Your task to perform on an android device: move an email to a new category in the gmail app Image 0: 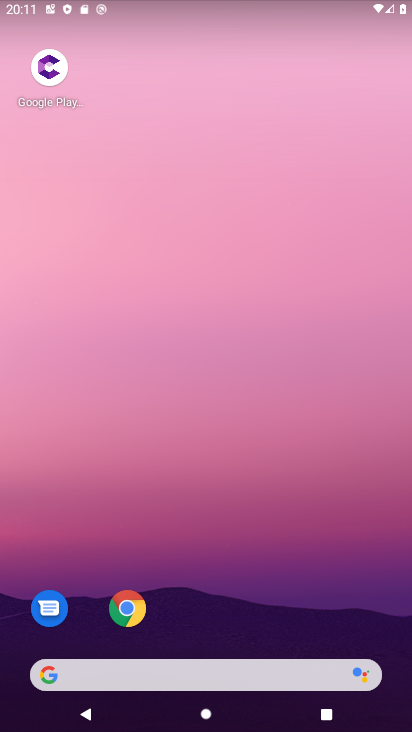
Step 0: drag from (213, 625) to (191, 186)
Your task to perform on an android device: move an email to a new category in the gmail app Image 1: 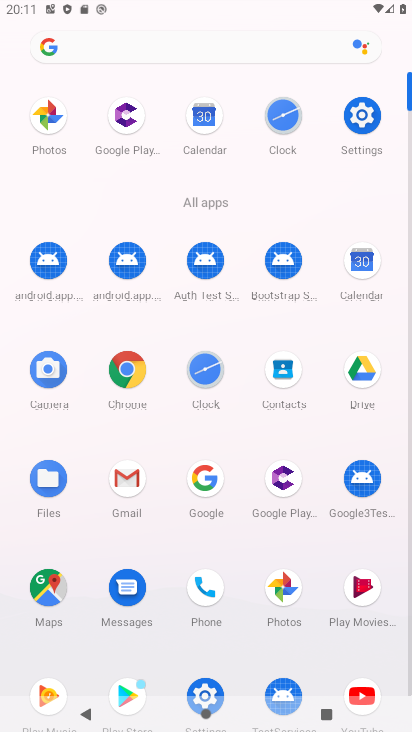
Step 1: click (127, 468)
Your task to perform on an android device: move an email to a new category in the gmail app Image 2: 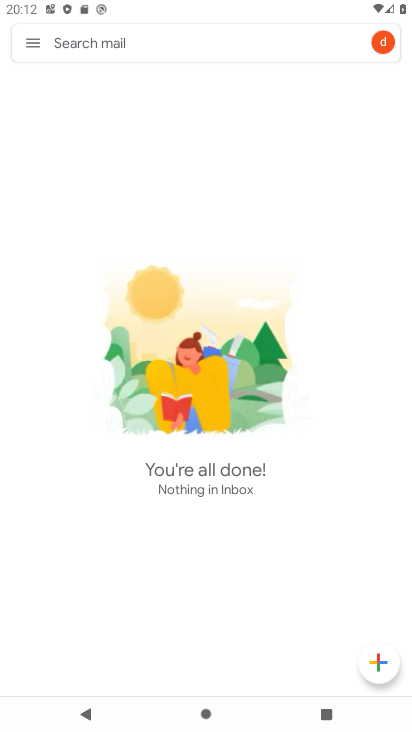
Step 2: click (27, 44)
Your task to perform on an android device: move an email to a new category in the gmail app Image 3: 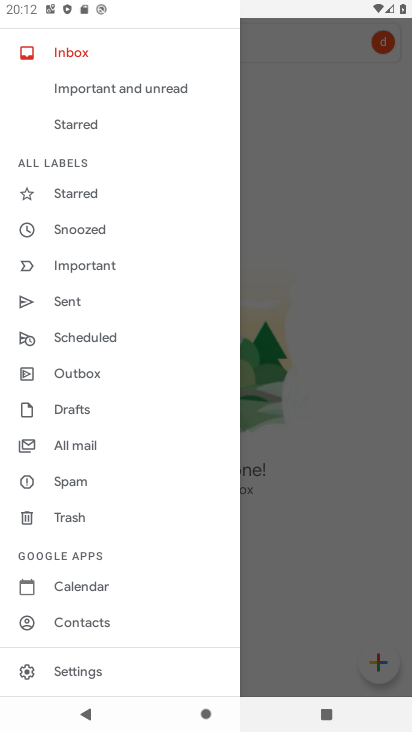
Step 3: click (103, 442)
Your task to perform on an android device: move an email to a new category in the gmail app Image 4: 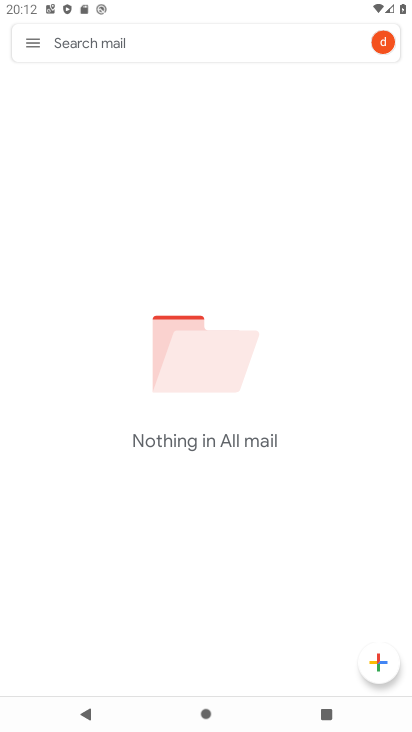
Step 4: click (26, 50)
Your task to perform on an android device: move an email to a new category in the gmail app Image 5: 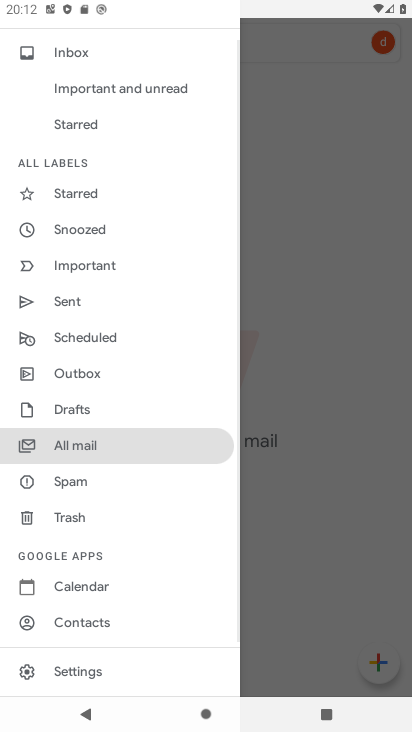
Step 5: click (121, 441)
Your task to perform on an android device: move an email to a new category in the gmail app Image 6: 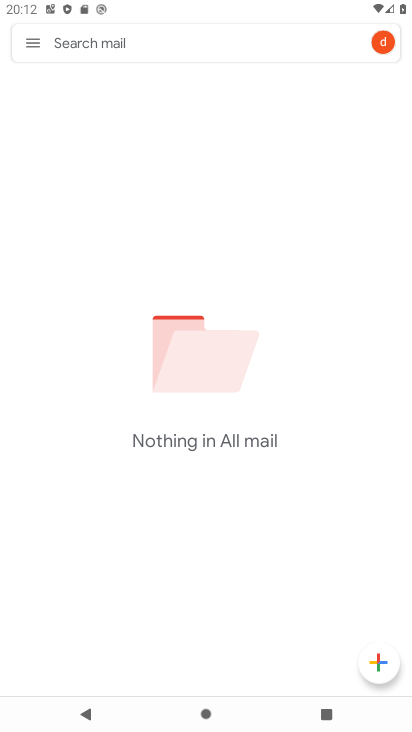
Step 6: task complete